Your task to perform on an android device: toggle javascript in the chrome app Image 0: 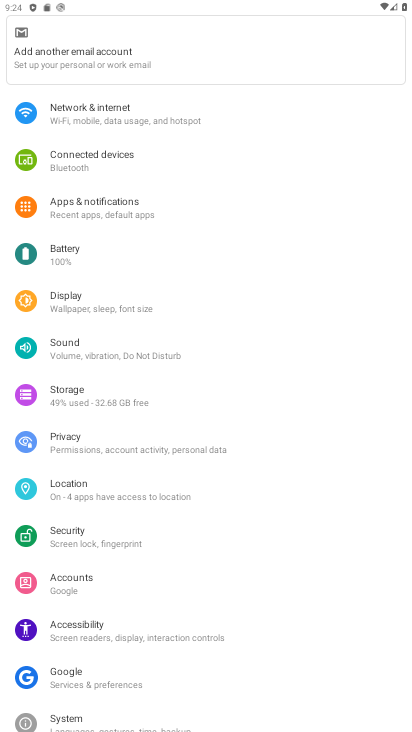
Step 0: press home button
Your task to perform on an android device: toggle javascript in the chrome app Image 1: 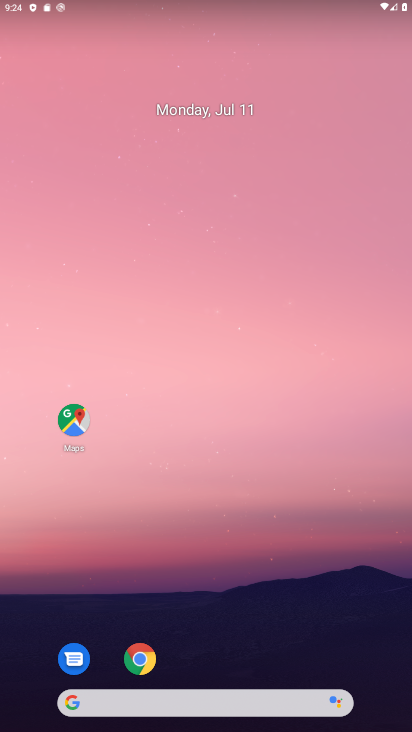
Step 1: drag from (293, 652) to (231, 29)
Your task to perform on an android device: toggle javascript in the chrome app Image 2: 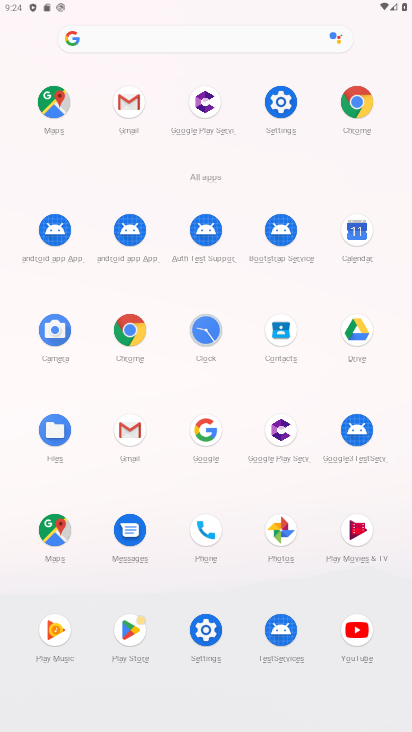
Step 2: click (366, 117)
Your task to perform on an android device: toggle javascript in the chrome app Image 3: 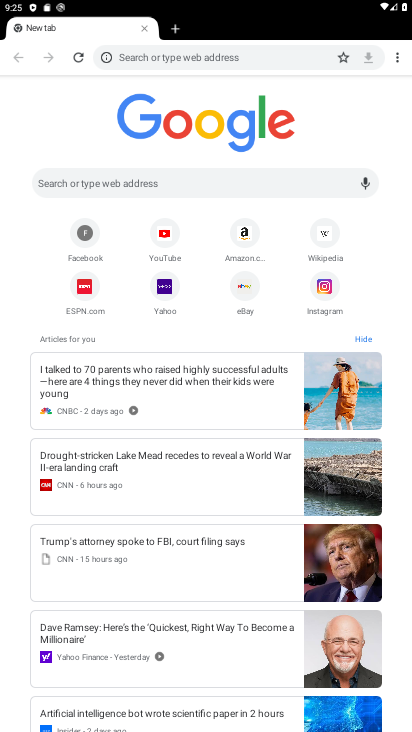
Step 3: drag from (397, 53) to (277, 270)
Your task to perform on an android device: toggle javascript in the chrome app Image 4: 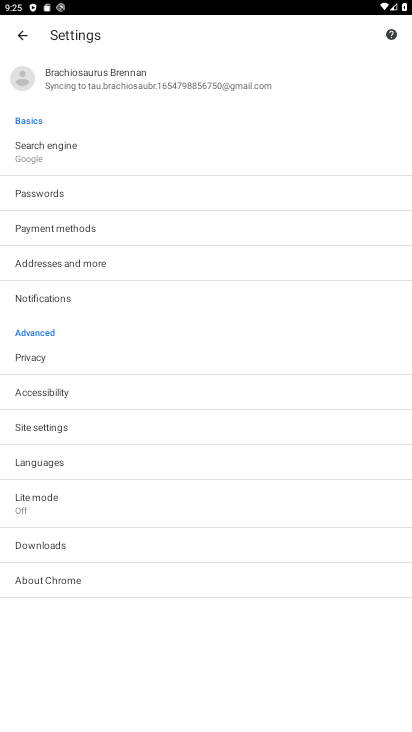
Step 4: click (96, 421)
Your task to perform on an android device: toggle javascript in the chrome app Image 5: 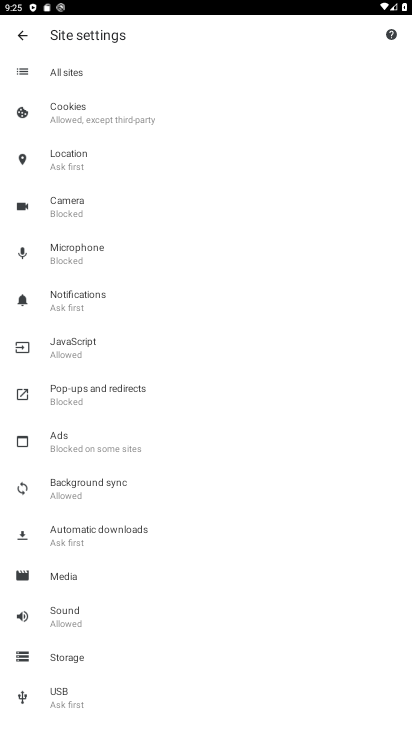
Step 5: click (74, 345)
Your task to perform on an android device: toggle javascript in the chrome app Image 6: 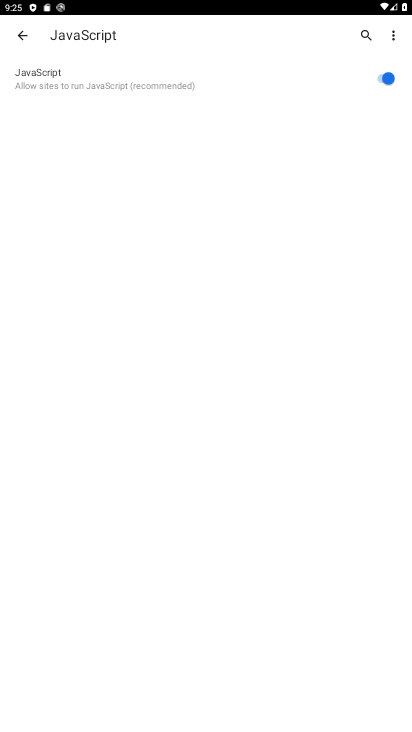
Step 6: click (389, 77)
Your task to perform on an android device: toggle javascript in the chrome app Image 7: 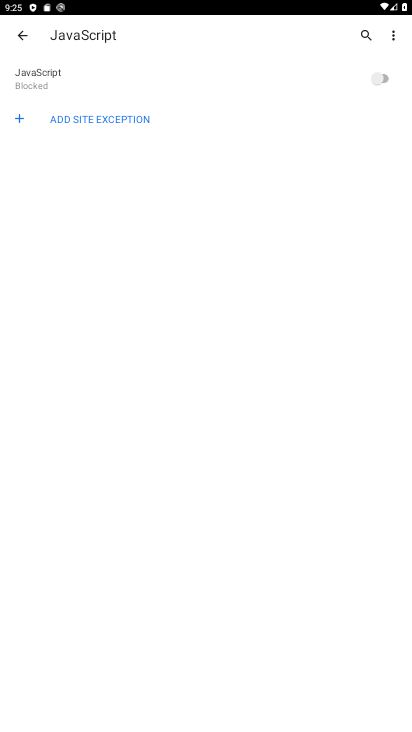
Step 7: task complete